Your task to perform on an android device: Open internet settings Image 0: 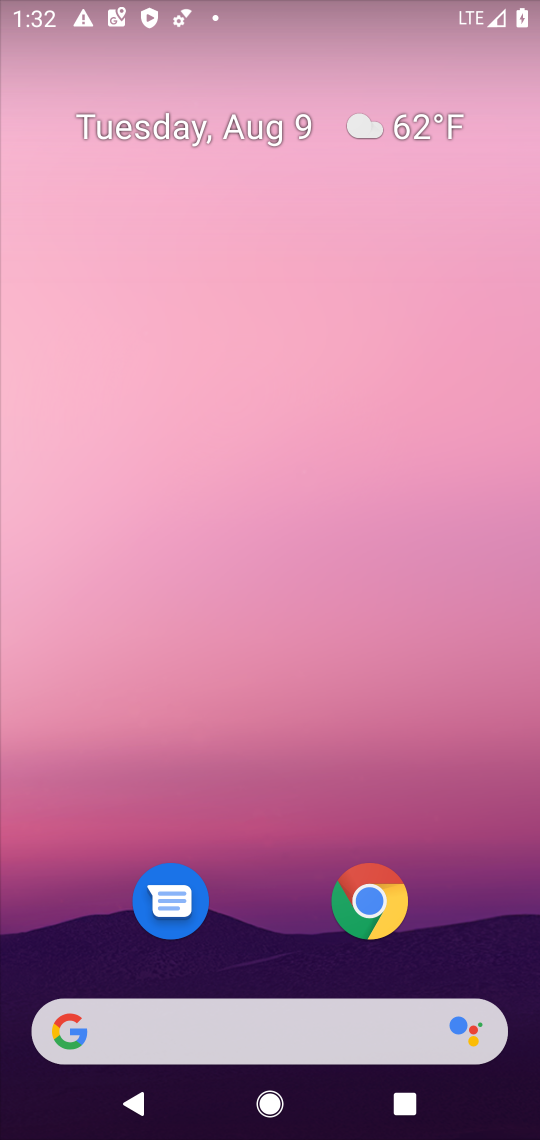
Step 0: drag from (521, 996) to (437, 231)
Your task to perform on an android device: Open internet settings Image 1: 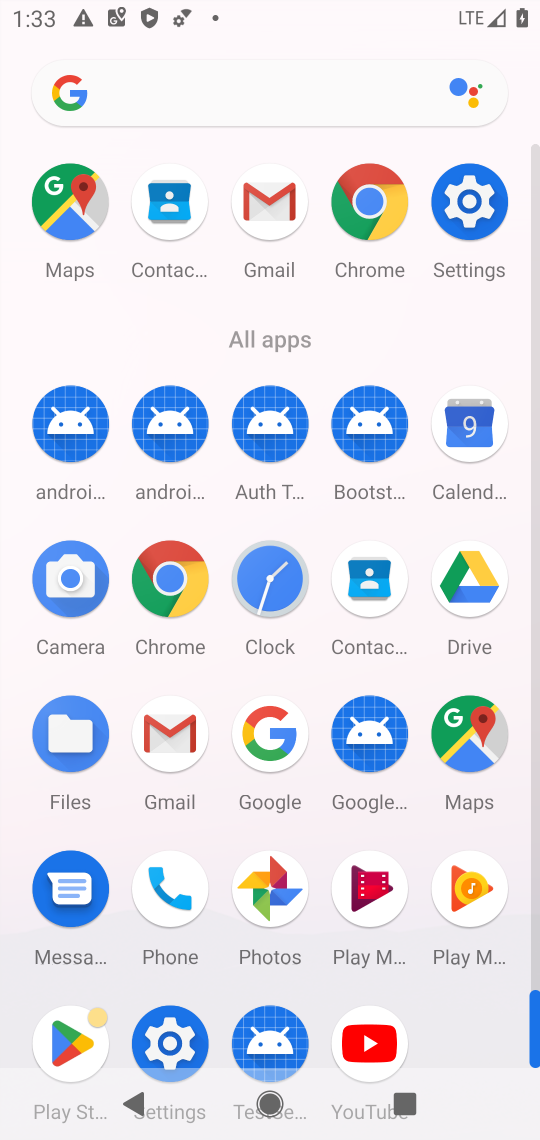
Step 1: click (167, 1041)
Your task to perform on an android device: Open internet settings Image 2: 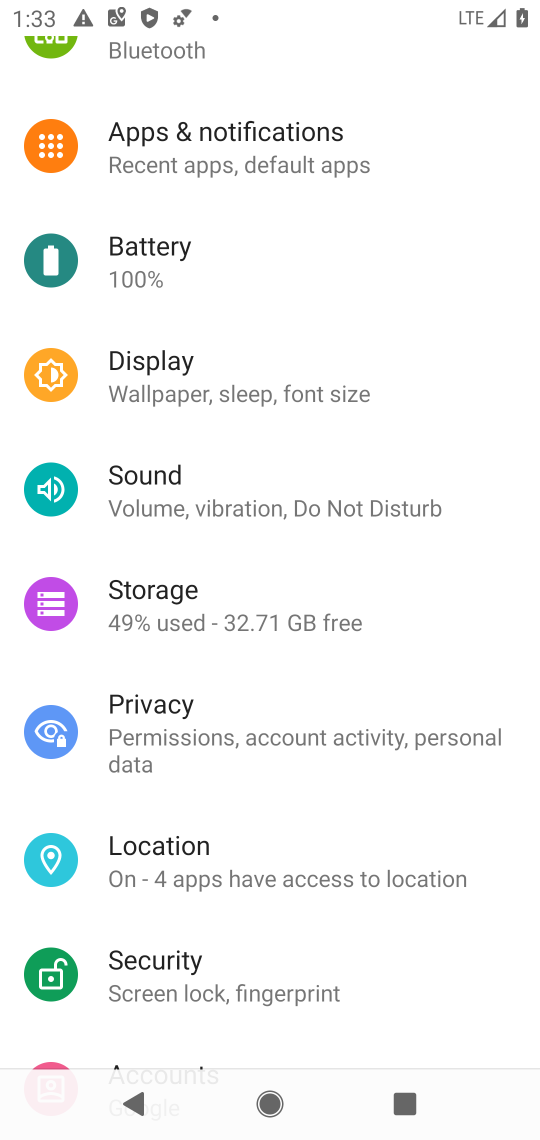
Step 2: drag from (445, 281) to (461, 590)
Your task to perform on an android device: Open internet settings Image 3: 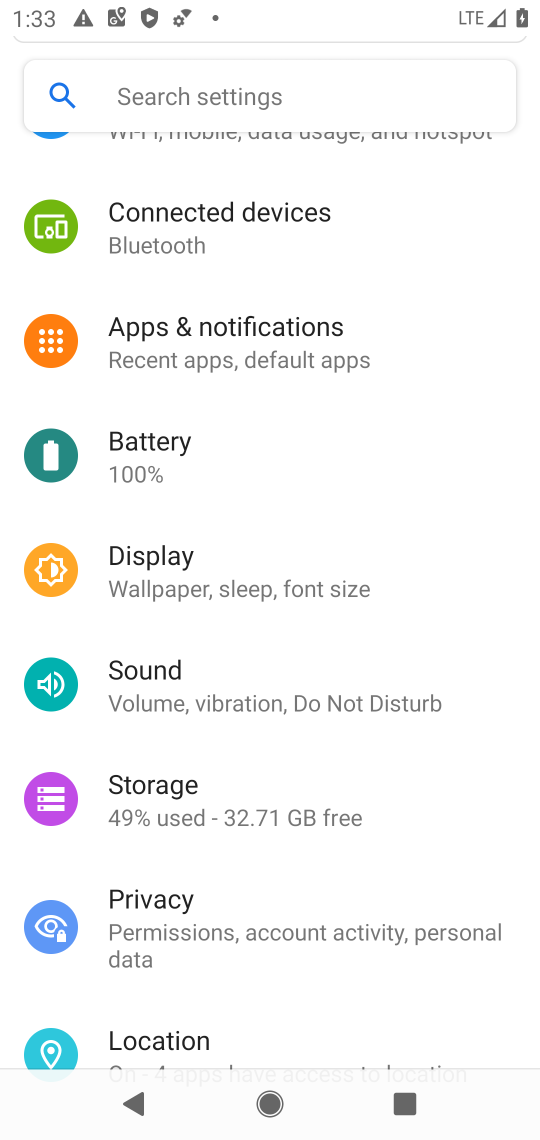
Step 3: drag from (448, 261) to (456, 608)
Your task to perform on an android device: Open internet settings Image 4: 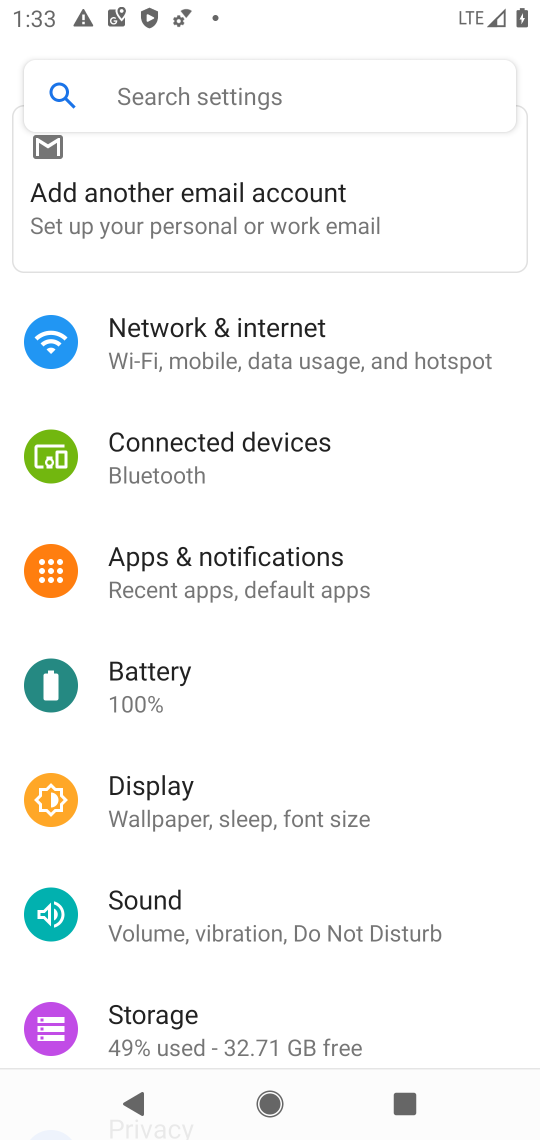
Step 4: click (171, 340)
Your task to perform on an android device: Open internet settings Image 5: 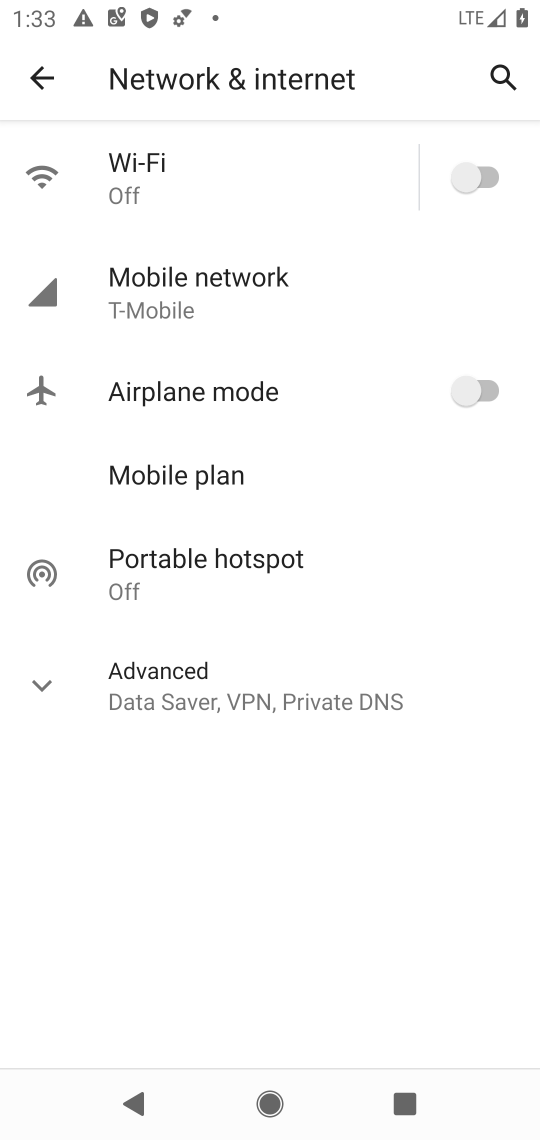
Step 5: click (153, 298)
Your task to perform on an android device: Open internet settings Image 6: 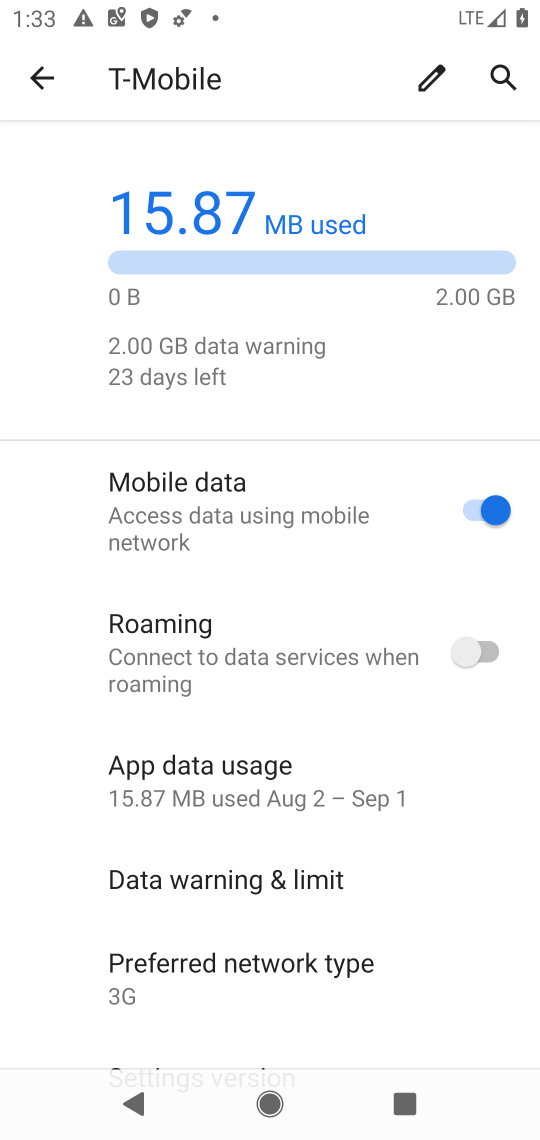
Step 6: task complete